Your task to perform on an android device: Go to calendar. Show me events next week Image 0: 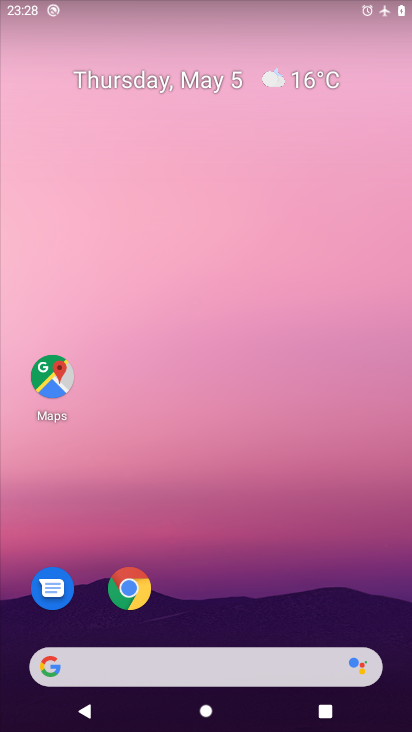
Step 0: drag from (241, 594) to (212, 155)
Your task to perform on an android device: Go to calendar. Show me events next week Image 1: 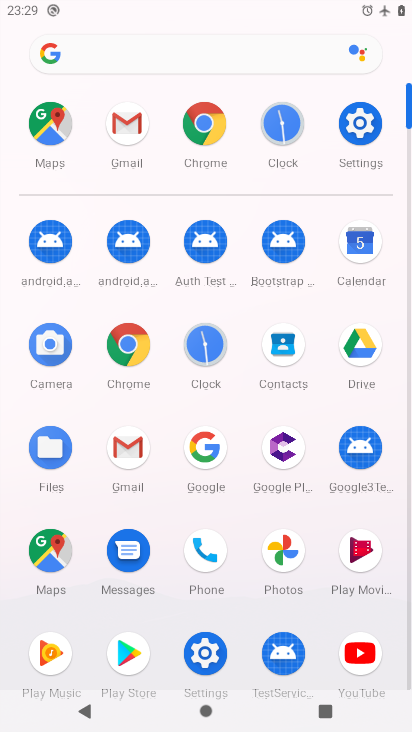
Step 1: click (364, 246)
Your task to perform on an android device: Go to calendar. Show me events next week Image 2: 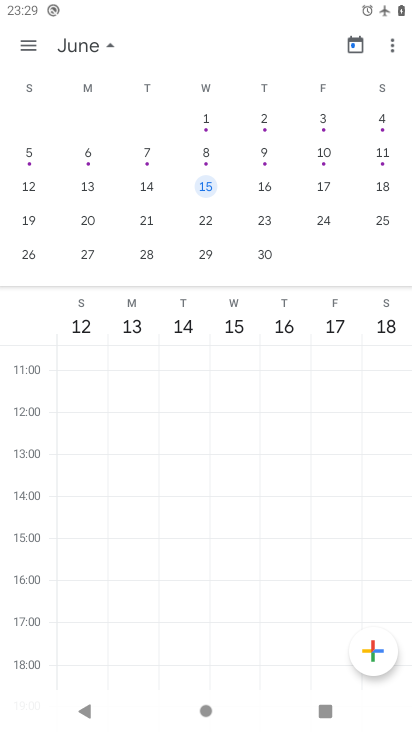
Step 2: click (31, 49)
Your task to perform on an android device: Go to calendar. Show me events next week Image 3: 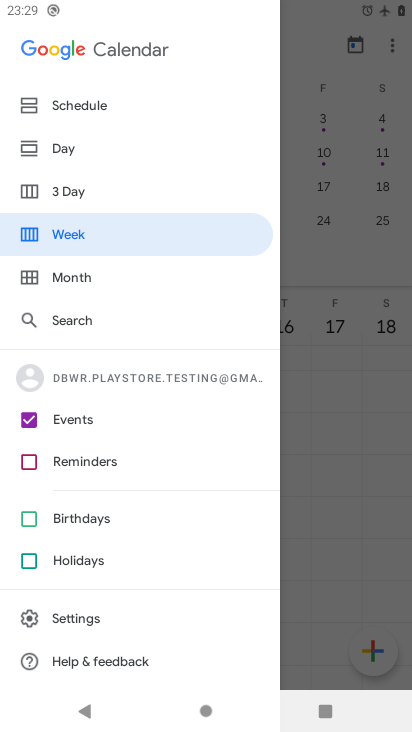
Step 3: click (198, 245)
Your task to perform on an android device: Go to calendar. Show me events next week Image 4: 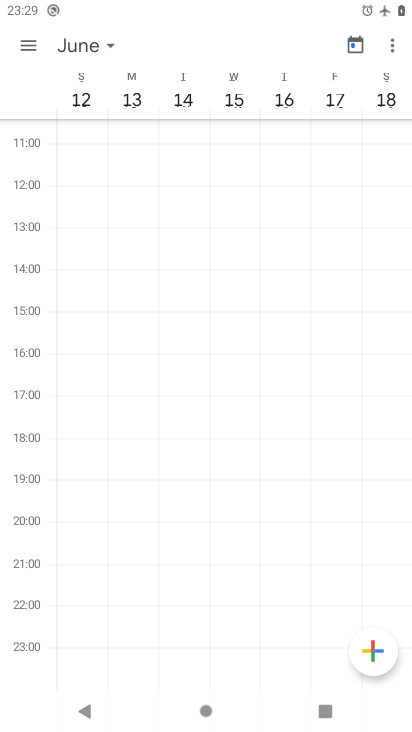
Step 4: click (112, 38)
Your task to perform on an android device: Go to calendar. Show me events next week Image 5: 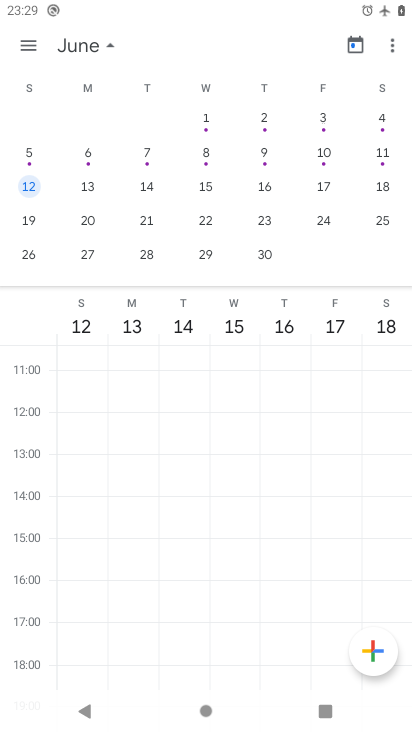
Step 5: drag from (70, 167) to (404, 243)
Your task to perform on an android device: Go to calendar. Show me events next week Image 6: 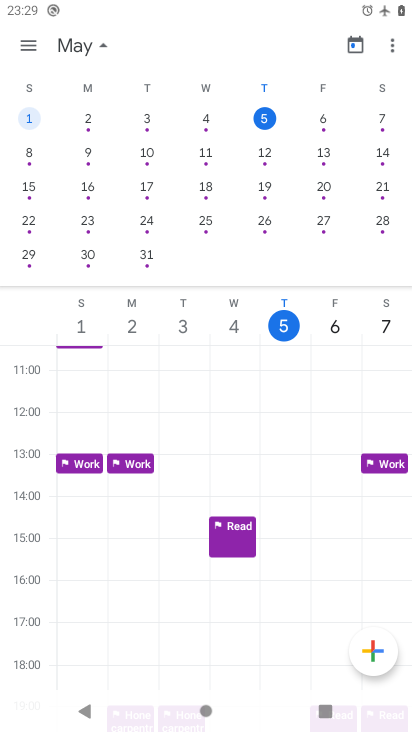
Step 6: click (267, 149)
Your task to perform on an android device: Go to calendar. Show me events next week Image 7: 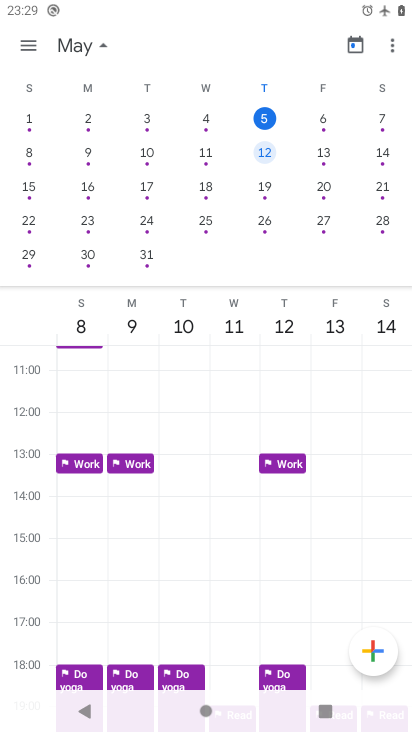
Step 7: task complete